Your task to perform on an android device: turn on improve location accuracy Image 0: 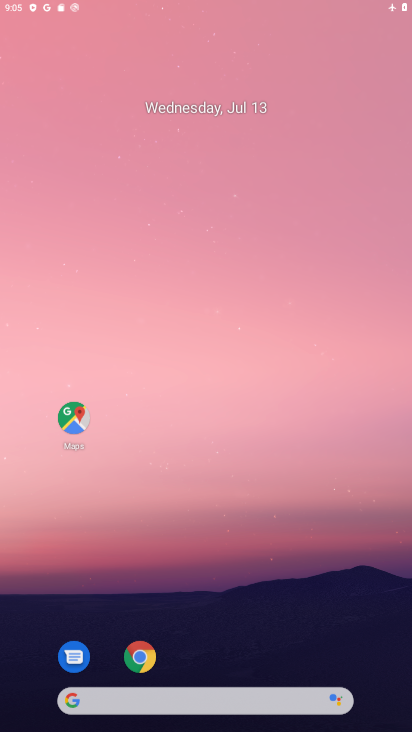
Step 0: press home button
Your task to perform on an android device: turn on improve location accuracy Image 1: 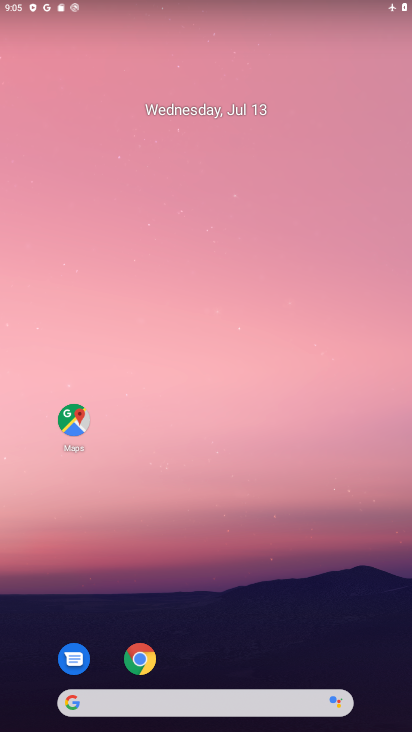
Step 1: drag from (220, 680) to (281, 79)
Your task to perform on an android device: turn on improve location accuracy Image 2: 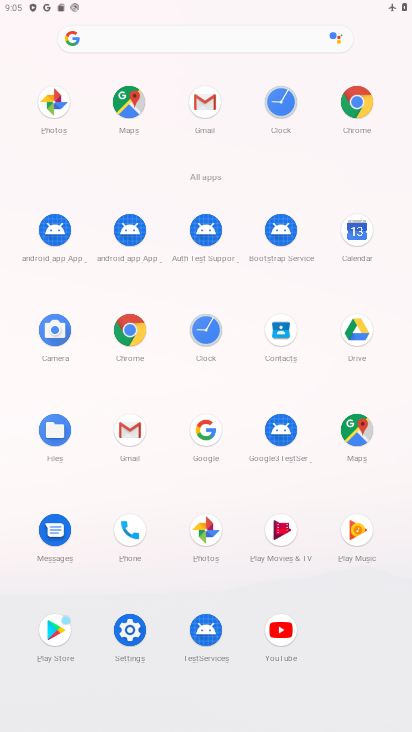
Step 2: click (127, 617)
Your task to perform on an android device: turn on improve location accuracy Image 3: 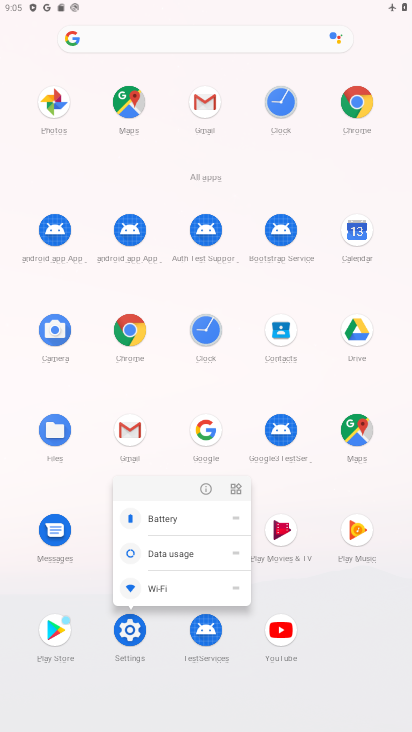
Step 3: click (127, 611)
Your task to perform on an android device: turn on improve location accuracy Image 4: 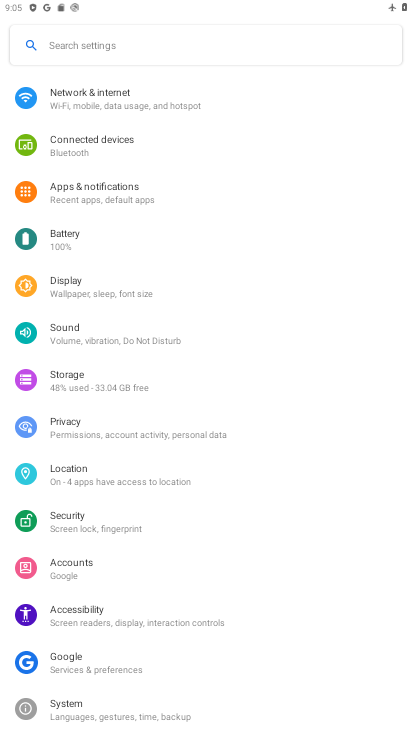
Step 4: click (81, 470)
Your task to perform on an android device: turn on improve location accuracy Image 5: 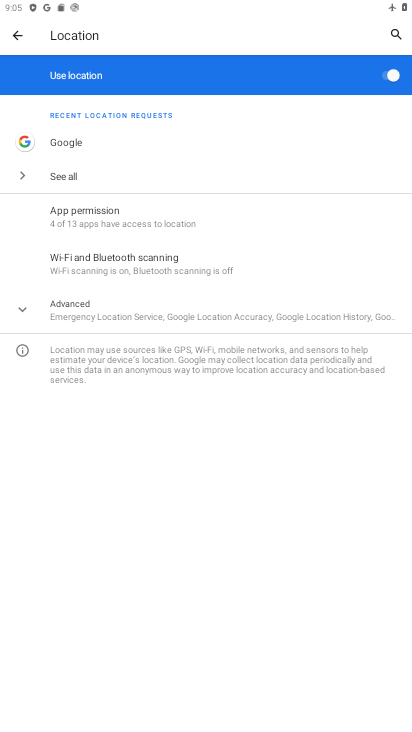
Step 5: click (76, 306)
Your task to perform on an android device: turn on improve location accuracy Image 6: 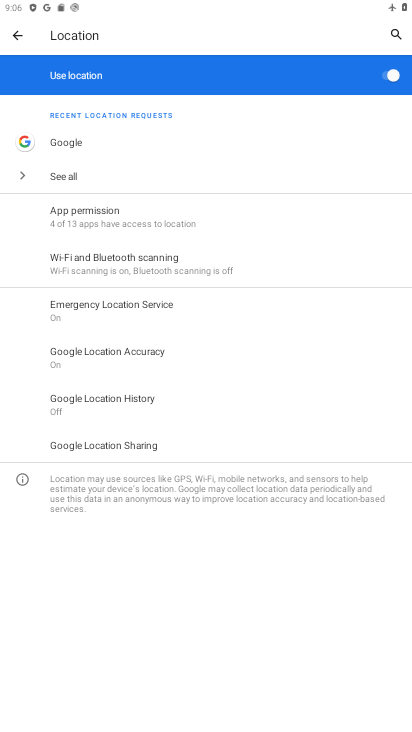
Step 6: click (106, 356)
Your task to perform on an android device: turn on improve location accuracy Image 7: 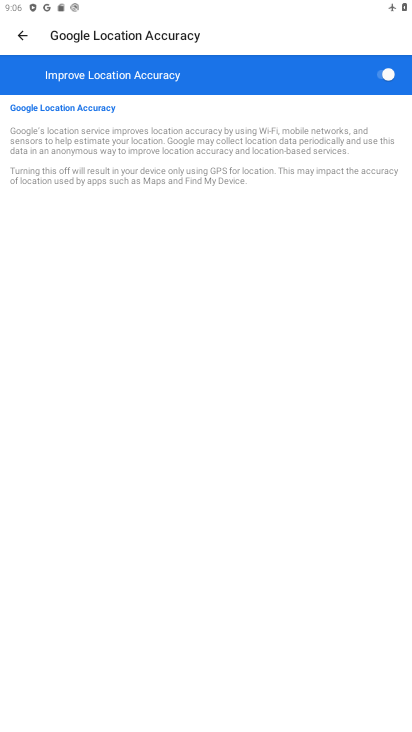
Step 7: task complete